Your task to perform on an android device: Is it going to rain this weekend? Image 0: 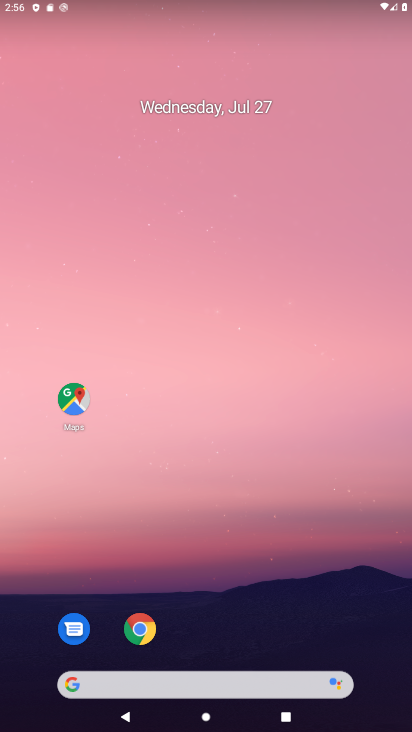
Step 0: drag from (225, 653) to (267, 127)
Your task to perform on an android device: Is it going to rain this weekend? Image 1: 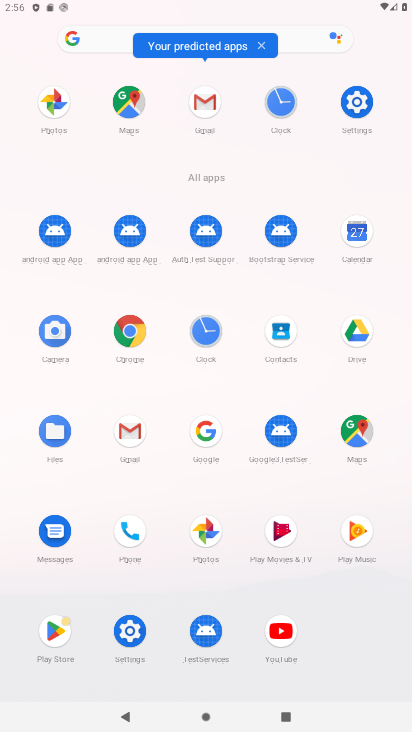
Step 1: click (102, 38)
Your task to perform on an android device: Is it going to rain this weekend? Image 2: 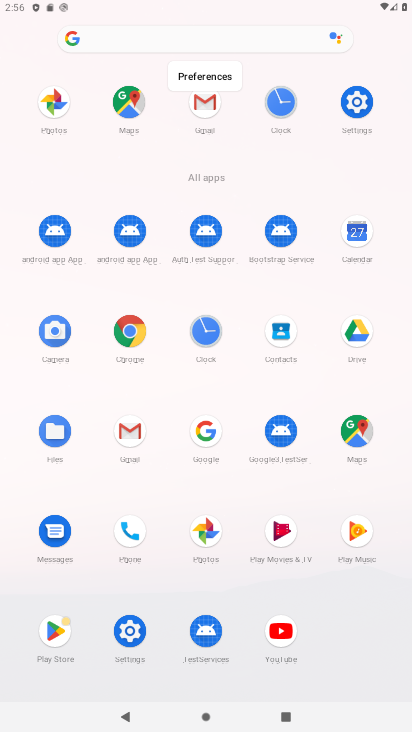
Step 2: click (129, 35)
Your task to perform on an android device: Is it going to rain this weekend? Image 3: 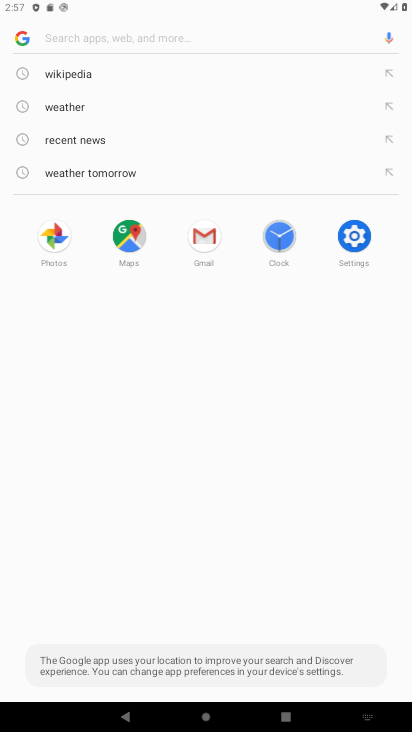
Step 3: click (82, 110)
Your task to perform on an android device: Is it going to rain this weekend? Image 4: 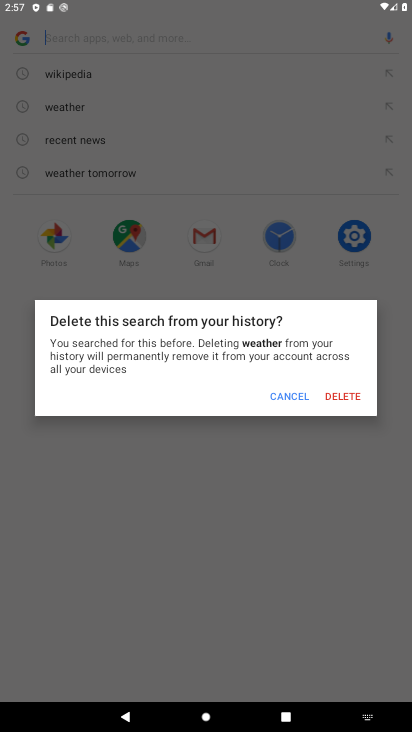
Step 4: click (287, 398)
Your task to perform on an android device: Is it going to rain this weekend? Image 5: 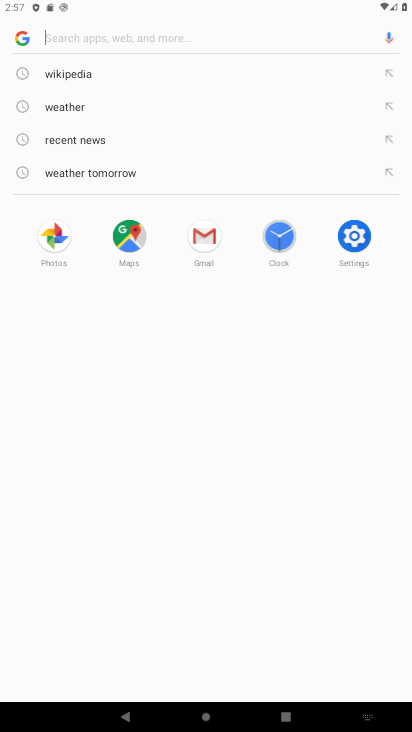
Step 5: click (73, 105)
Your task to perform on an android device: Is it going to rain this weekend? Image 6: 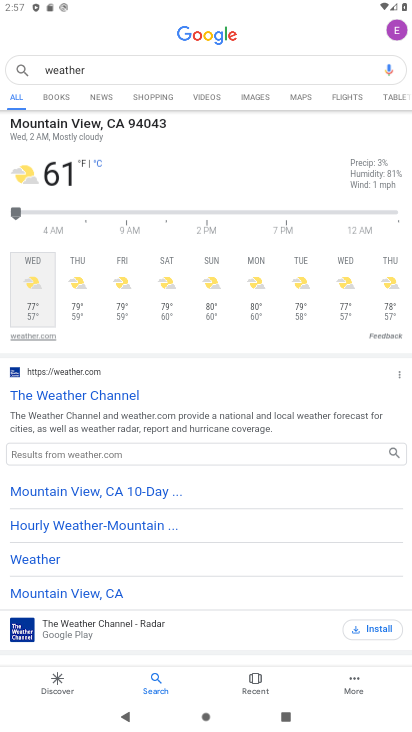
Step 6: click (165, 275)
Your task to perform on an android device: Is it going to rain this weekend? Image 7: 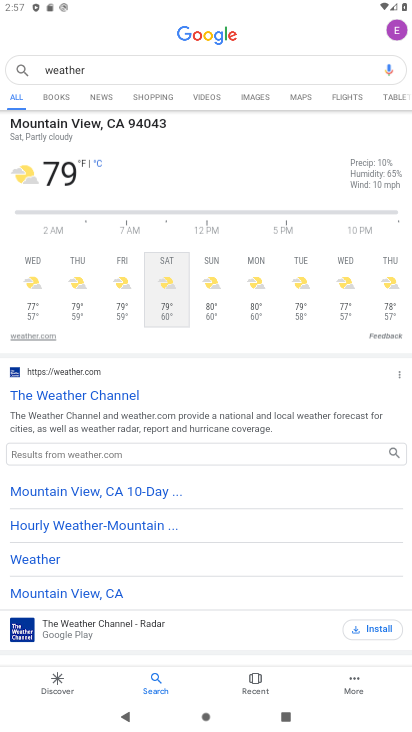
Step 7: task complete